Your task to perform on an android device: turn on sleep mode Image 0: 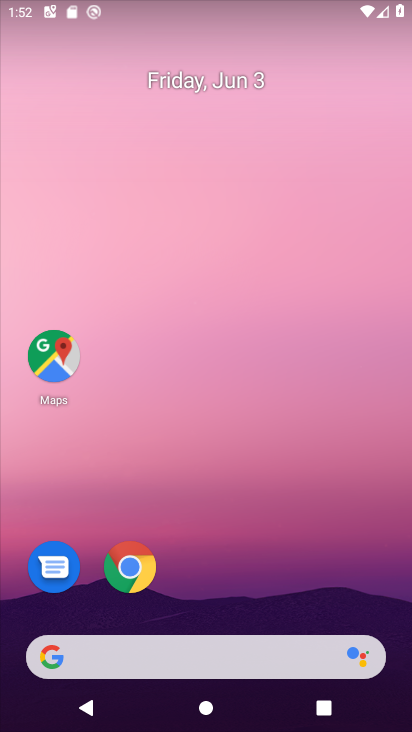
Step 0: drag from (161, 591) to (184, 205)
Your task to perform on an android device: turn on sleep mode Image 1: 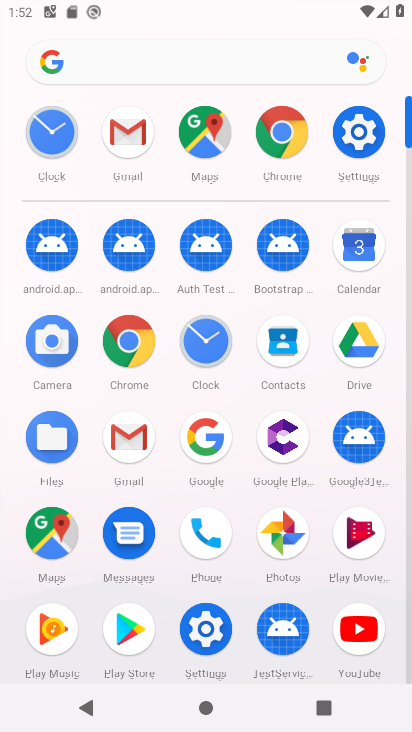
Step 1: click (347, 135)
Your task to perform on an android device: turn on sleep mode Image 2: 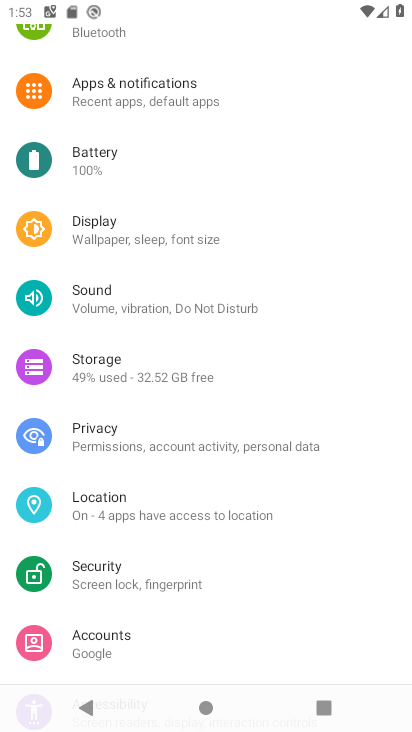
Step 2: task complete